Your task to perform on an android device: delete browsing data in the chrome app Image 0: 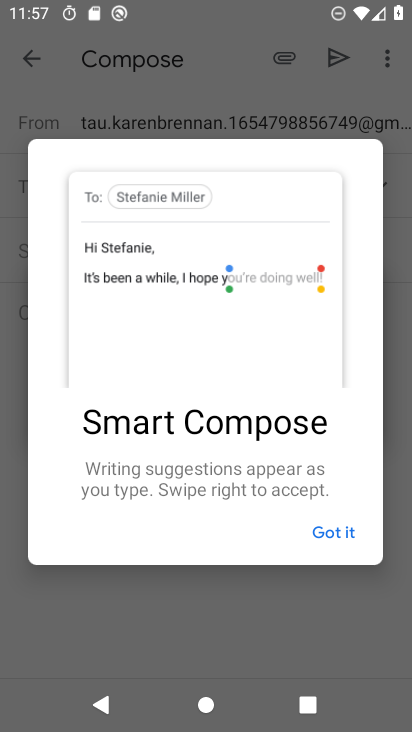
Step 0: press home button
Your task to perform on an android device: delete browsing data in the chrome app Image 1: 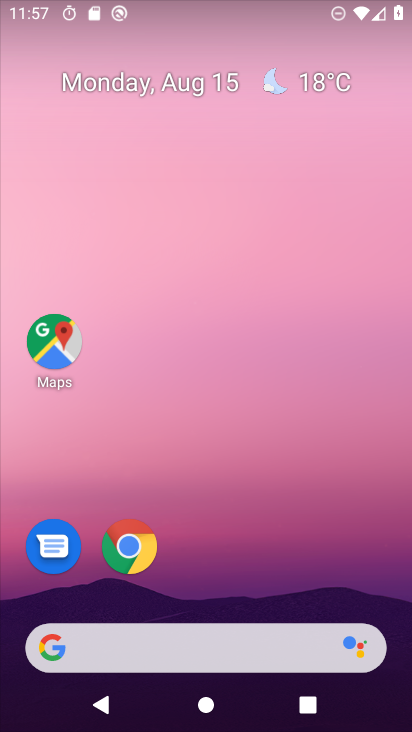
Step 1: click (125, 544)
Your task to perform on an android device: delete browsing data in the chrome app Image 2: 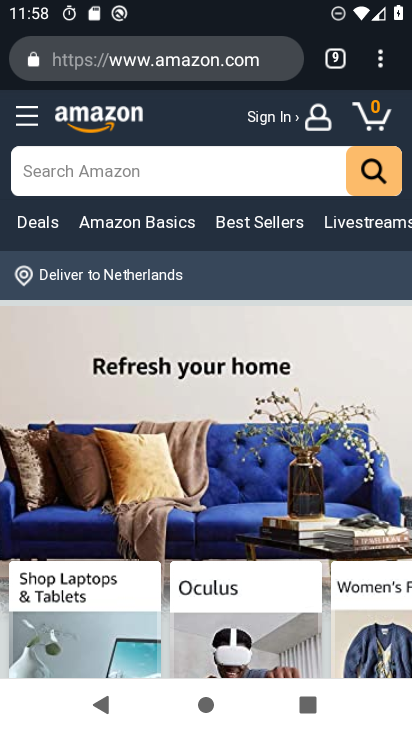
Step 2: drag from (380, 66) to (159, 334)
Your task to perform on an android device: delete browsing data in the chrome app Image 3: 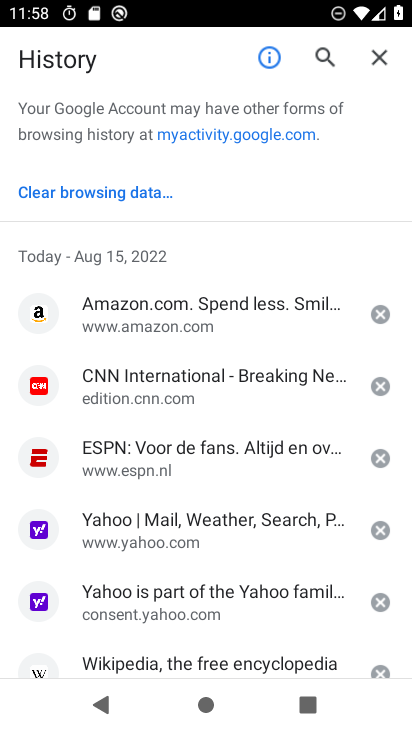
Step 3: click (111, 191)
Your task to perform on an android device: delete browsing data in the chrome app Image 4: 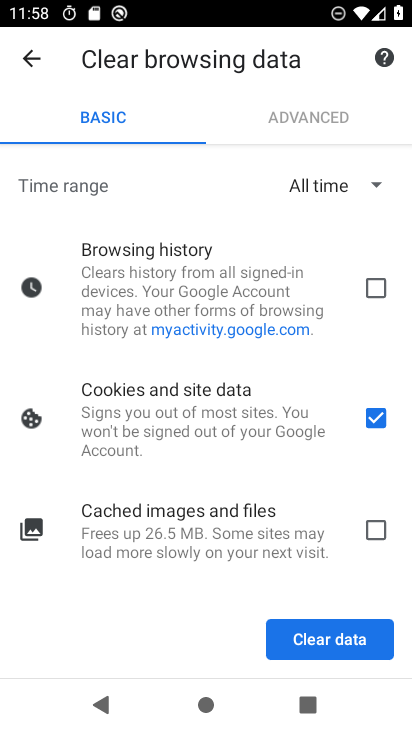
Step 4: click (385, 280)
Your task to perform on an android device: delete browsing data in the chrome app Image 5: 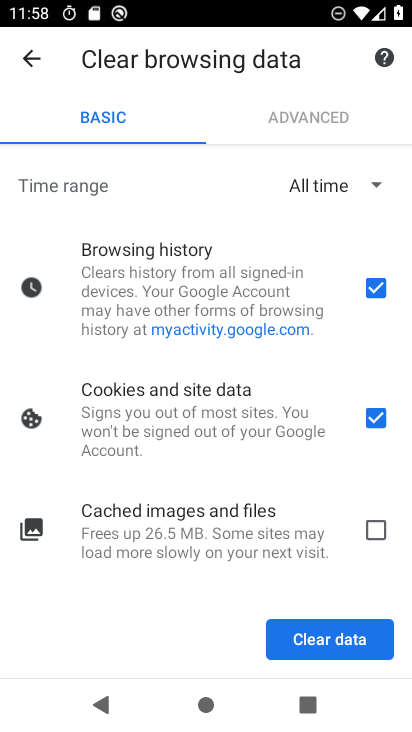
Step 5: click (379, 412)
Your task to perform on an android device: delete browsing data in the chrome app Image 6: 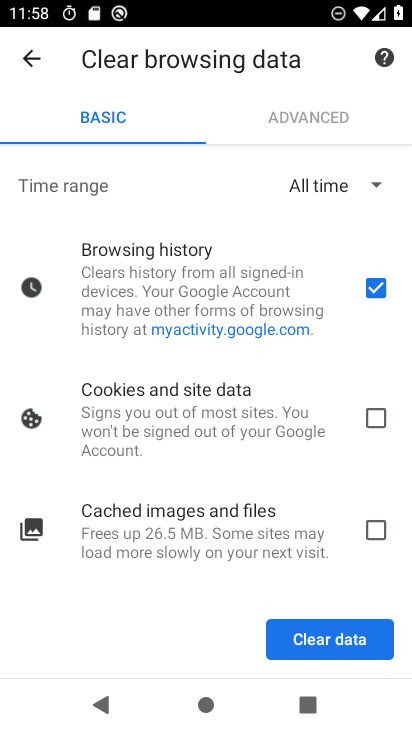
Step 6: click (335, 639)
Your task to perform on an android device: delete browsing data in the chrome app Image 7: 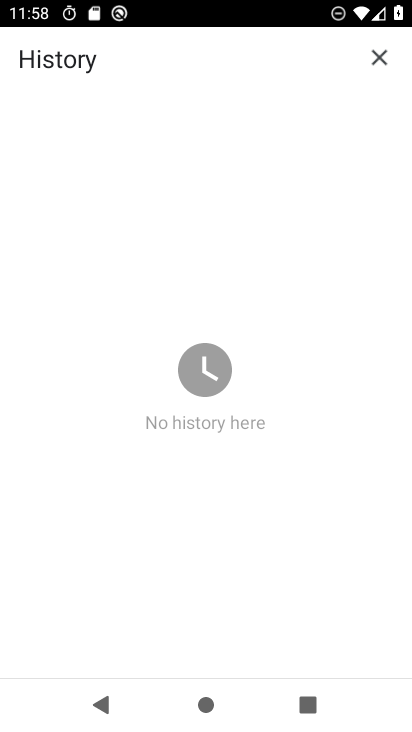
Step 7: task complete